Your task to perform on an android device: open a bookmark in the chrome app Image 0: 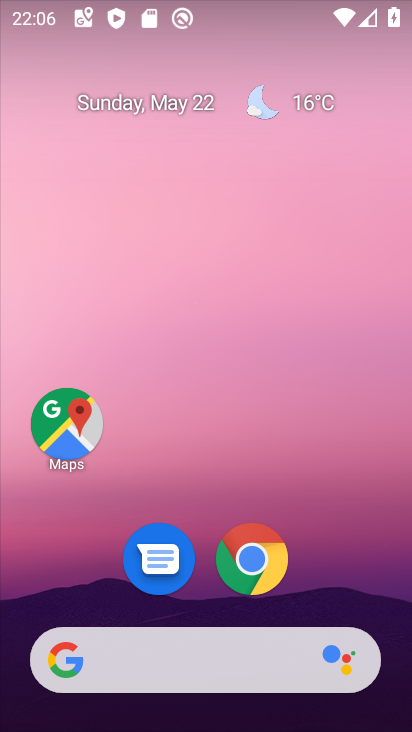
Step 0: press home button
Your task to perform on an android device: open a bookmark in the chrome app Image 1: 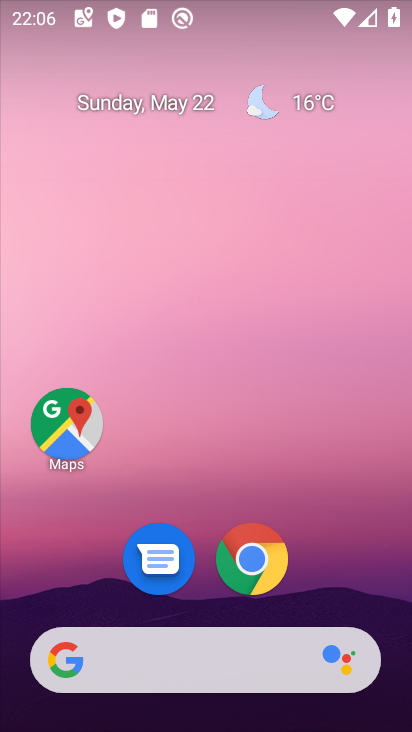
Step 1: drag from (292, 717) to (242, 117)
Your task to perform on an android device: open a bookmark in the chrome app Image 2: 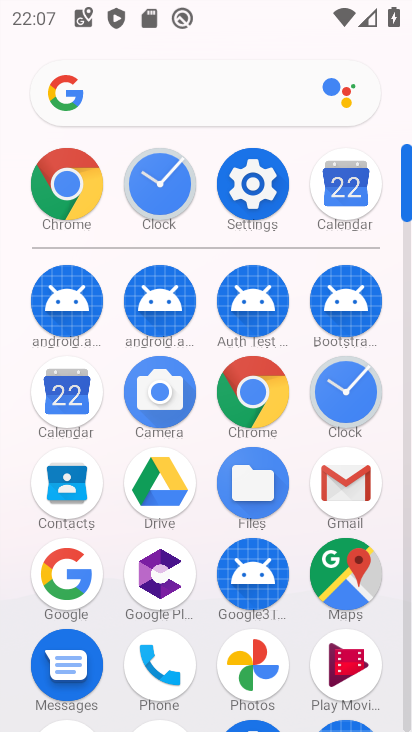
Step 2: click (75, 200)
Your task to perform on an android device: open a bookmark in the chrome app Image 3: 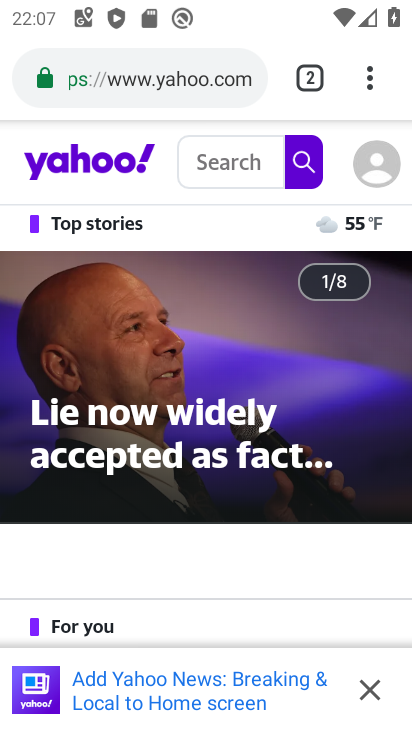
Step 3: click (359, 95)
Your task to perform on an android device: open a bookmark in the chrome app Image 4: 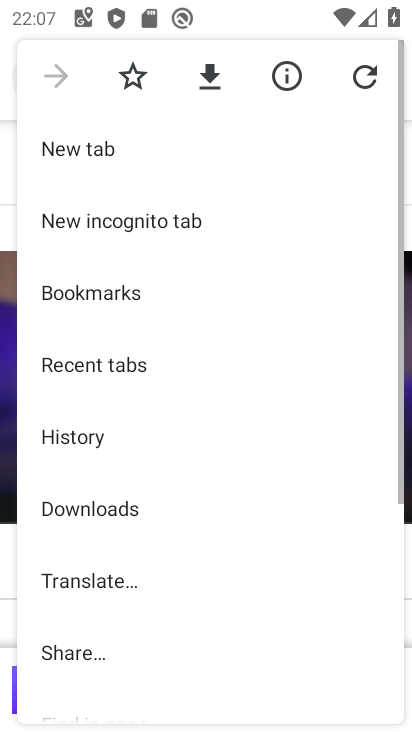
Step 4: click (98, 288)
Your task to perform on an android device: open a bookmark in the chrome app Image 5: 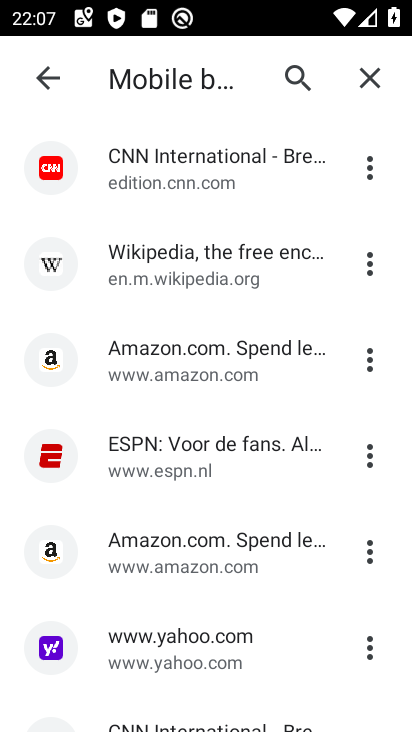
Step 5: task complete